Your task to perform on an android device: Go to Google maps Image 0: 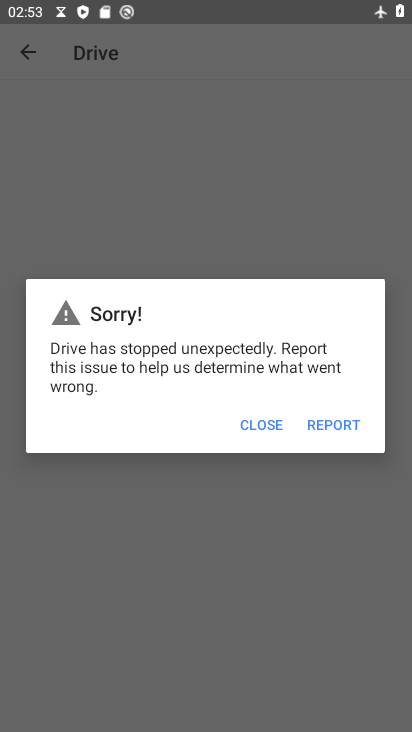
Step 0: press home button
Your task to perform on an android device: Go to Google maps Image 1: 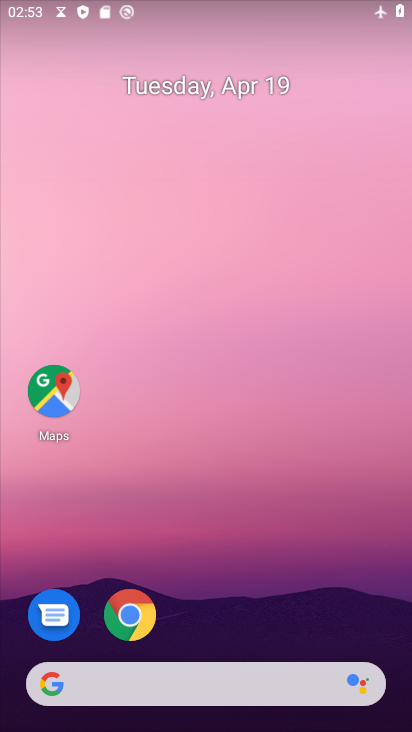
Step 1: drag from (225, 479) to (206, 227)
Your task to perform on an android device: Go to Google maps Image 2: 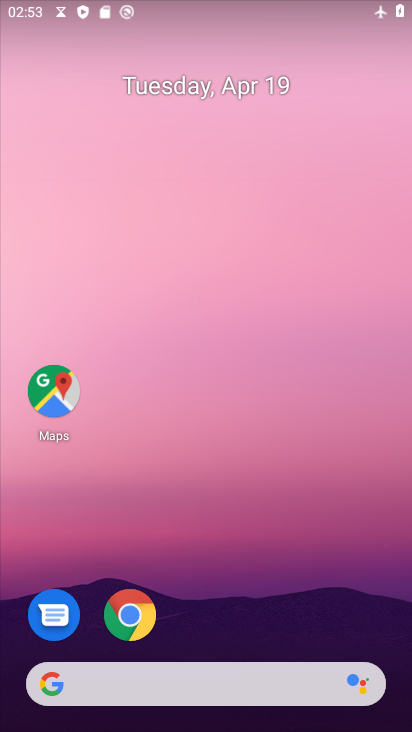
Step 2: drag from (240, 508) to (225, 25)
Your task to perform on an android device: Go to Google maps Image 3: 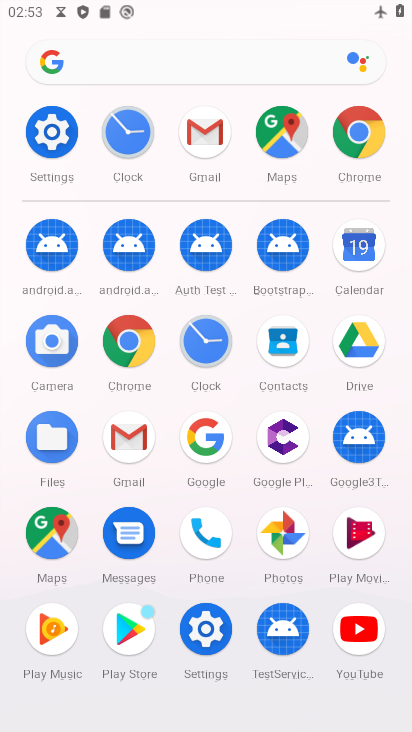
Step 3: click (50, 521)
Your task to perform on an android device: Go to Google maps Image 4: 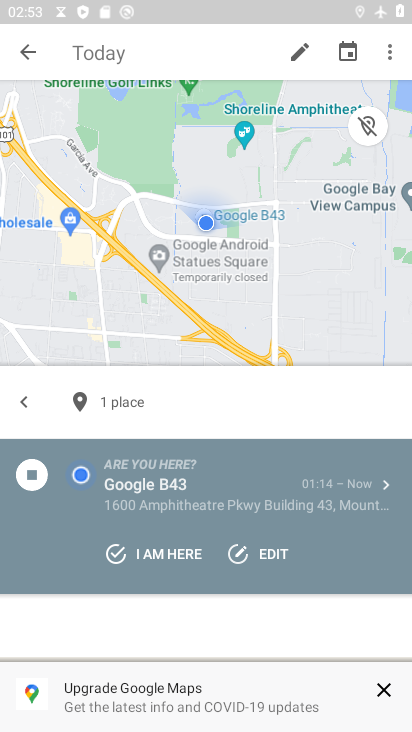
Step 4: click (30, 51)
Your task to perform on an android device: Go to Google maps Image 5: 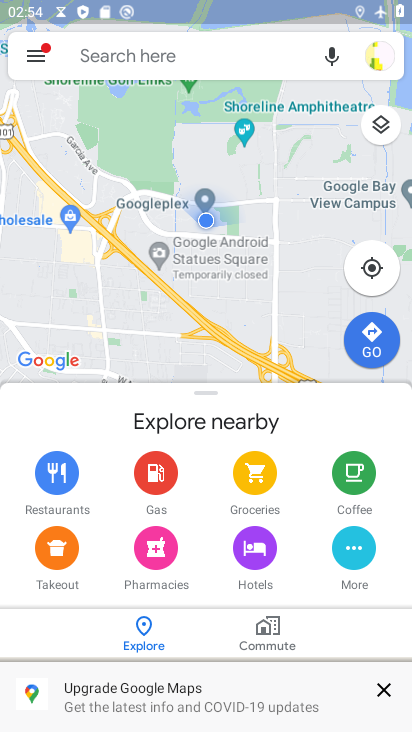
Step 5: task complete